Your task to perform on an android device: Open battery settings Image 0: 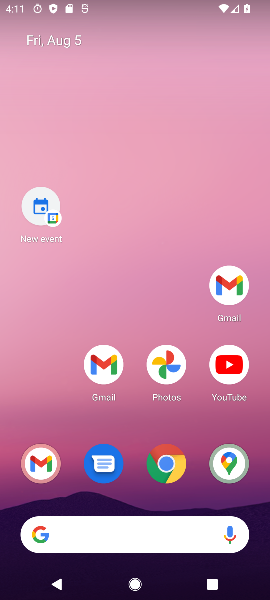
Step 0: drag from (136, 573) to (158, 193)
Your task to perform on an android device: Open battery settings Image 1: 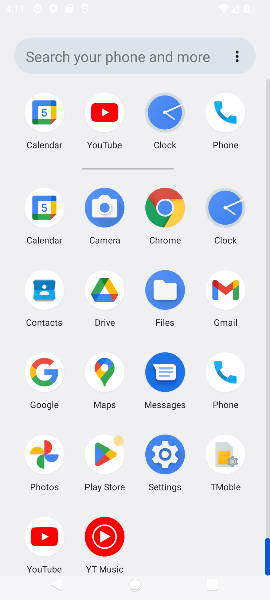
Step 1: drag from (192, 503) to (159, 278)
Your task to perform on an android device: Open battery settings Image 2: 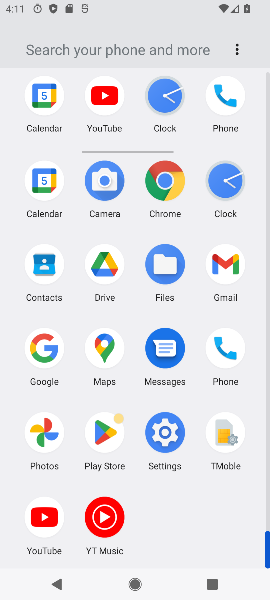
Step 2: drag from (157, 421) to (157, 278)
Your task to perform on an android device: Open battery settings Image 3: 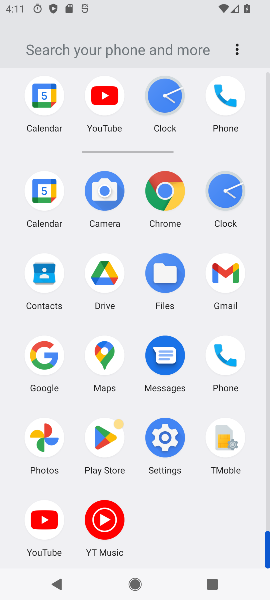
Step 3: click (171, 437)
Your task to perform on an android device: Open battery settings Image 4: 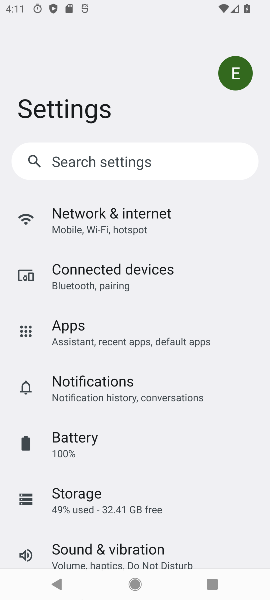
Step 4: click (68, 446)
Your task to perform on an android device: Open battery settings Image 5: 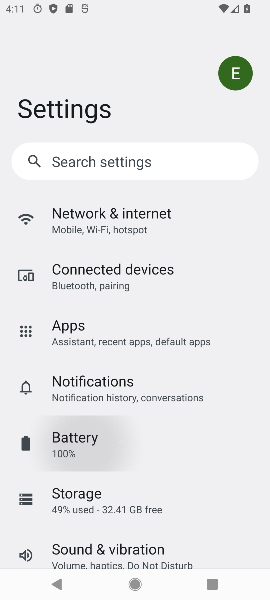
Step 5: click (69, 446)
Your task to perform on an android device: Open battery settings Image 6: 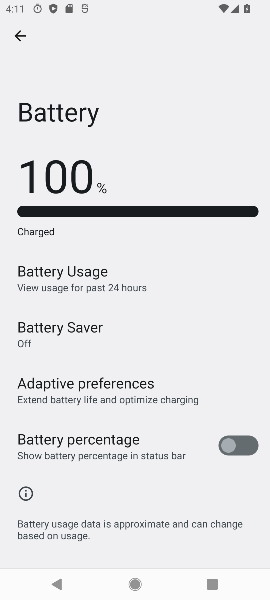
Step 6: task complete